Your task to perform on an android device: When is my next appointment? Image 0: 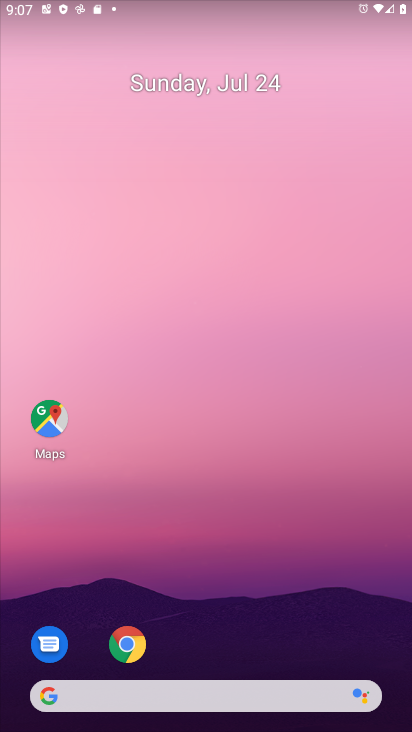
Step 0: drag from (188, 567) to (172, 107)
Your task to perform on an android device: When is my next appointment? Image 1: 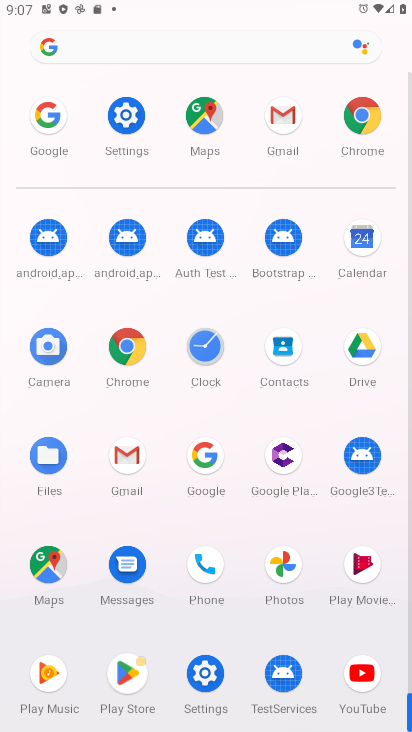
Step 1: click (338, 232)
Your task to perform on an android device: When is my next appointment? Image 2: 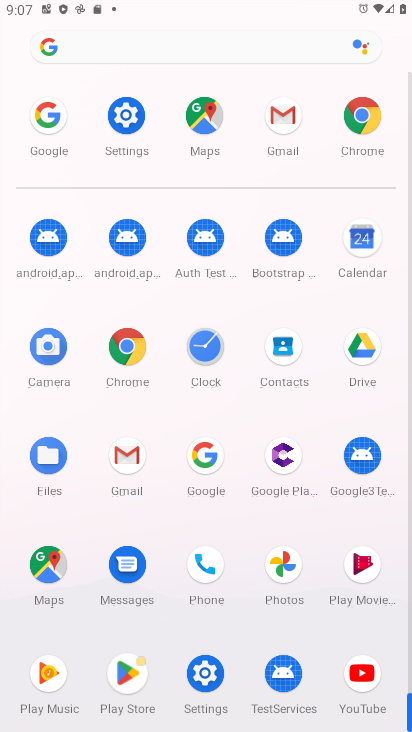
Step 2: click (380, 246)
Your task to perform on an android device: When is my next appointment? Image 3: 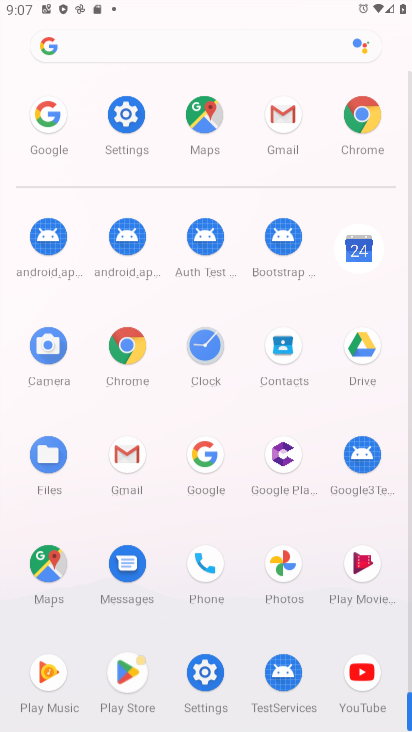
Step 3: click (371, 240)
Your task to perform on an android device: When is my next appointment? Image 4: 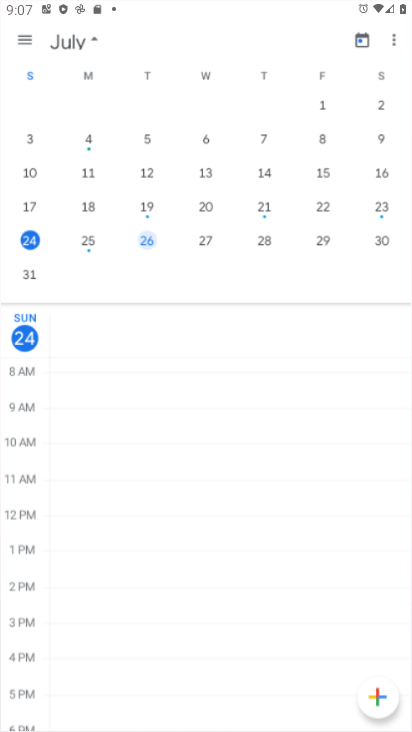
Step 4: click (365, 236)
Your task to perform on an android device: When is my next appointment? Image 5: 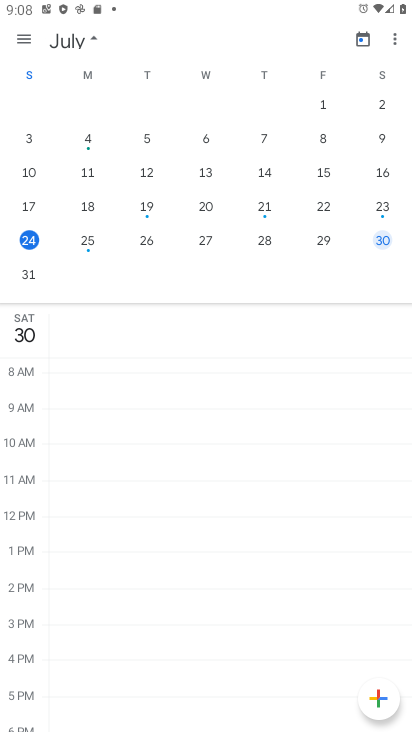
Step 5: task complete